Your task to perform on an android device: Open privacy settings Image 0: 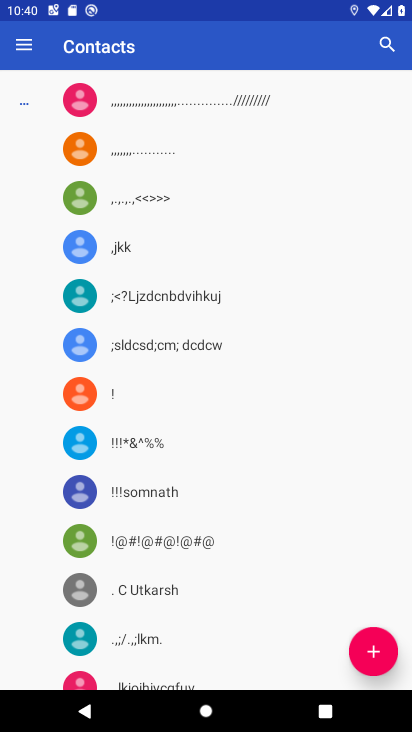
Step 0: press home button
Your task to perform on an android device: Open privacy settings Image 1: 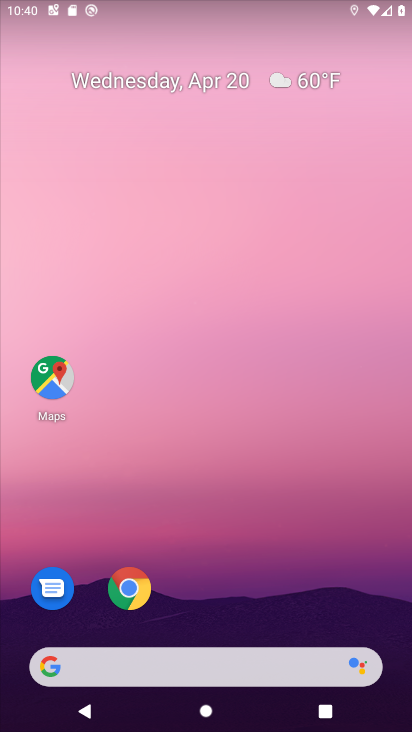
Step 1: drag from (220, 587) to (255, 36)
Your task to perform on an android device: Open privacy settings Image 2: 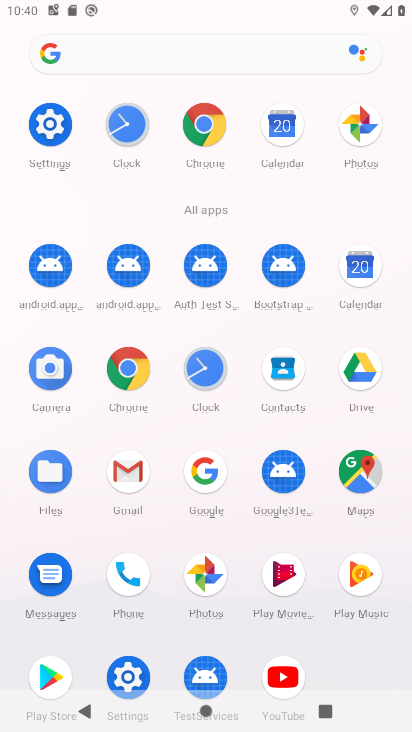
Step 2: click (53, 125)
Your task to perform on an android device: Open privacy settings Image 3: 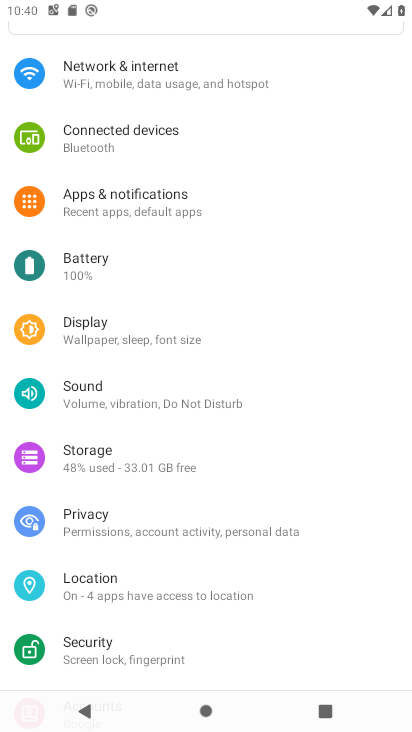
Step 3: click (80, 513)
Your task to perform on an android device: Open privacy settings Image 4: 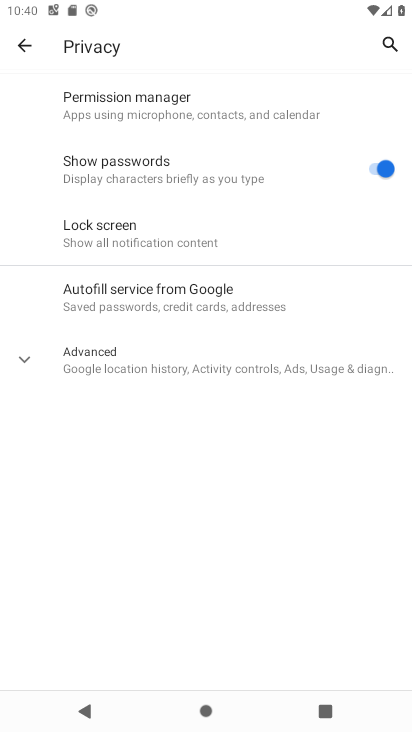
Step 4: task complete